Your task to perform on an android device: Open Maps and search for coffee Image 0: 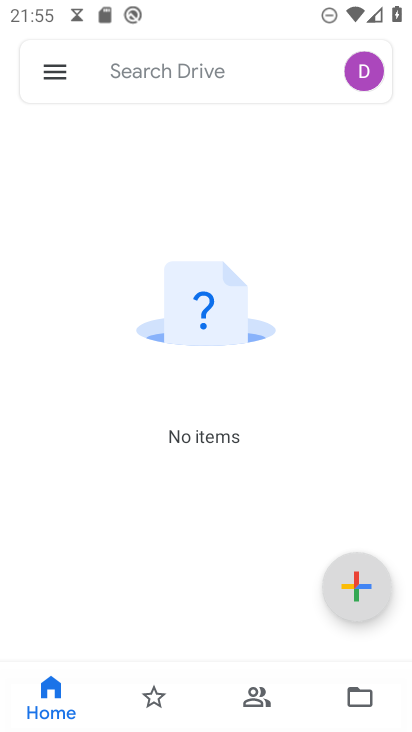
Step 0: press home button
Your task to perform on an android device: Open Maps and search for coffee Image 1: 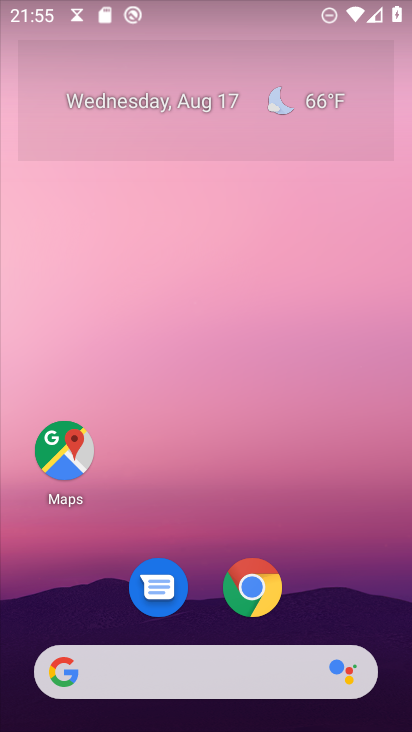
Step 1: click (72, 468)
Your task to perform on an android device: Open Maps and search for coffee Image 2: 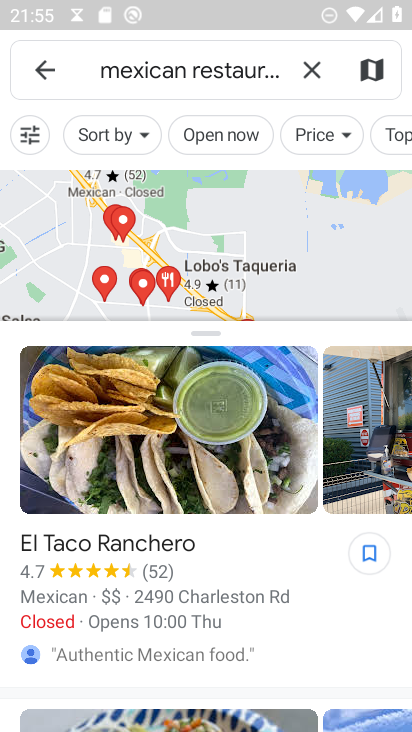
Step 2: press back button
Your task to perform on an android device: Open Maps and search for coffee Image 3: 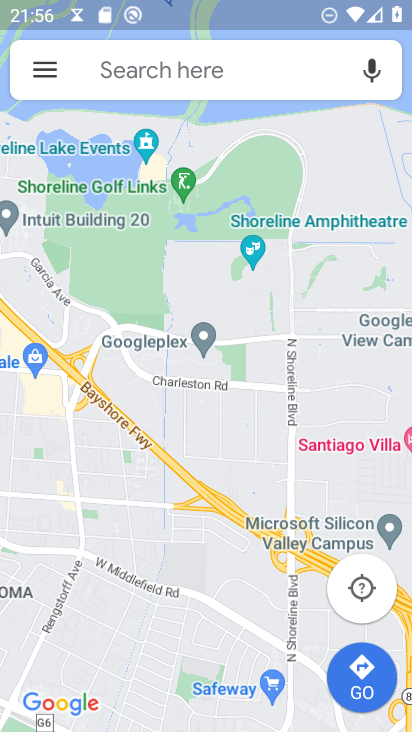
Step 3: click (137, 62)
Your task to perform on an android device: Open Maps and search for coffee Image 4: 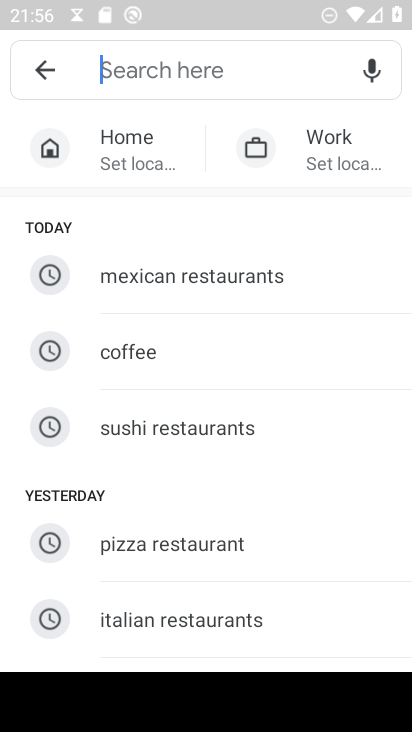
Step 4: click (143, 346)
Your task to perform on an android device: Open Maps and search for coffee Image 5: 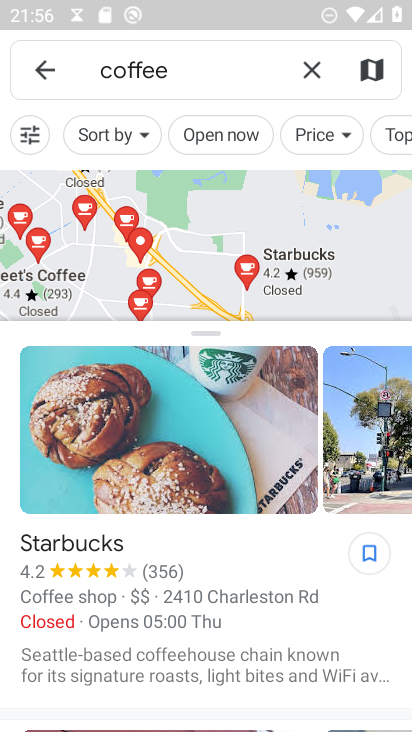
Step 5: task complete